Your task to perform on an android device: refresh tabs in the chrome app Image 0: 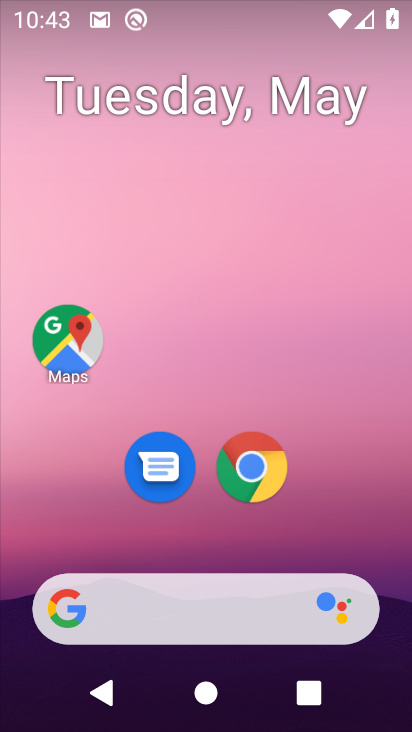
Step 0: drag from (215, 509) to (270, 168)
Your task to perform on an android device: refresh tabs in the chrome app Image 1: 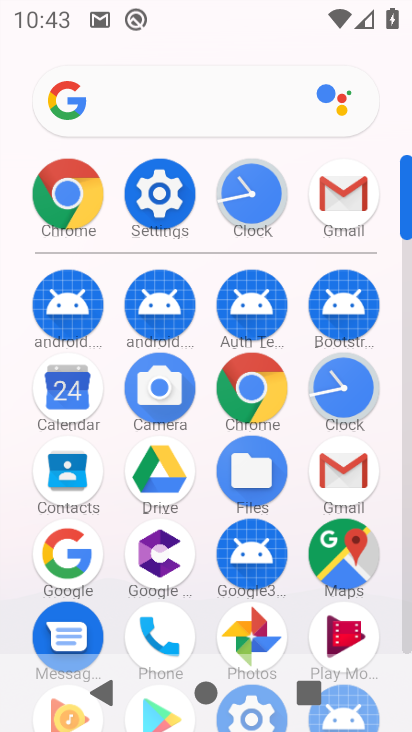
Step 1: click (254, 376)
Your task to perform on an android device: refresh tabs in the chrome app Image 2: 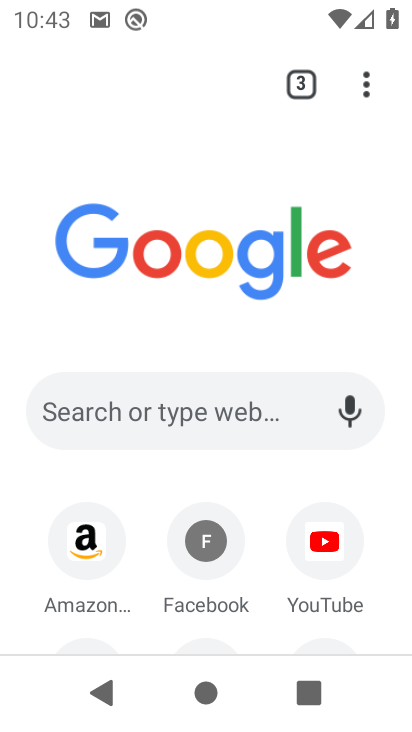
Step 2: click (358, 88)
Your task to perform on an android device: refresh tabs in the chrome app Image 3: 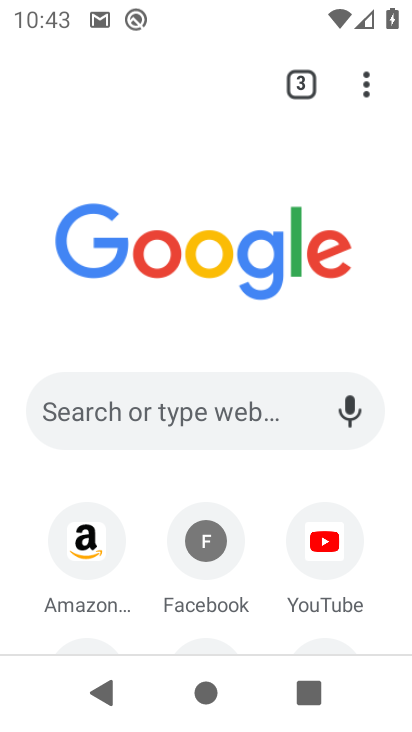
Step 3: task complete